Your task to perform on an android device: What is the news today? Image 0: 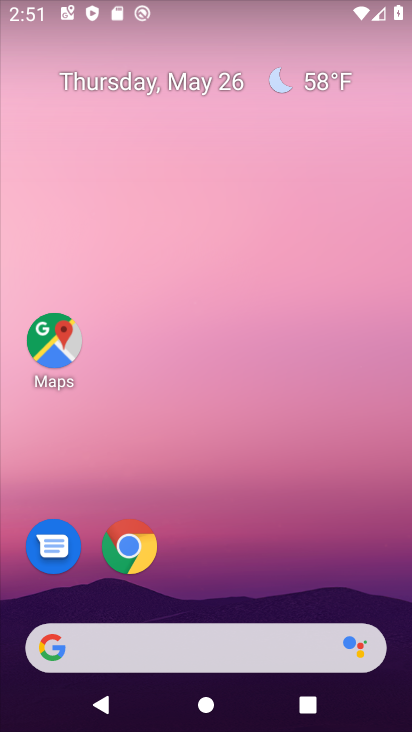
Step 0: press home button
Your task to perform on an android device: What is the news today? Image 1: 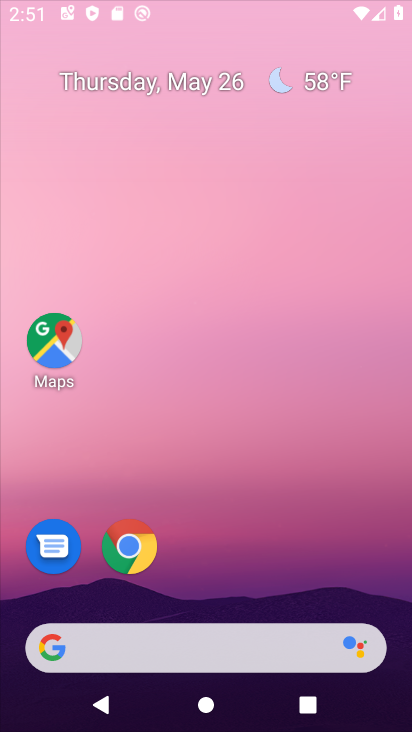
Step 1: task complete